Your task to perform on an android device: Open battery settings Image 0: 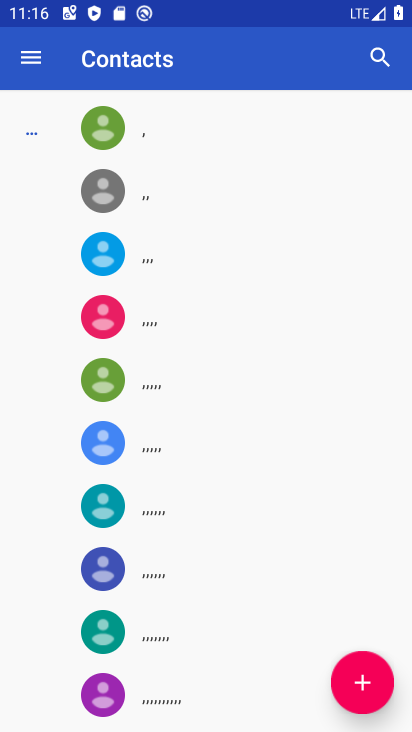
Step 0: press home button
Your task to perform on an android device: Open battery settings Image 1: 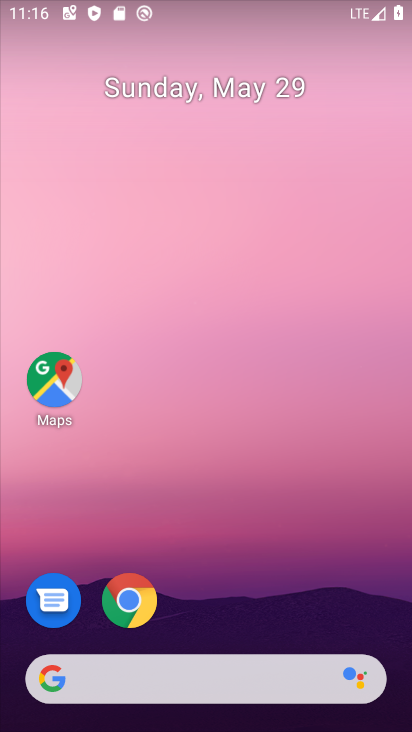
Step 1: drag from (295, 644) to (306, 40)
Your task to perform on an android device: Open battery settings Image 2: 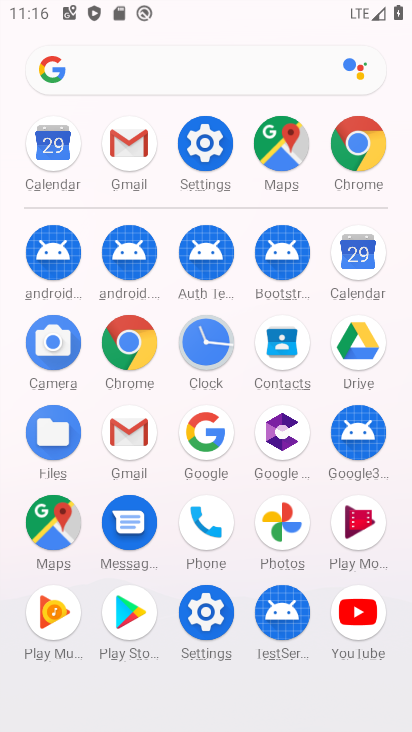
Step 2: click (208, 142)
Your task to perform on an android device: Open battery settings Image 3: 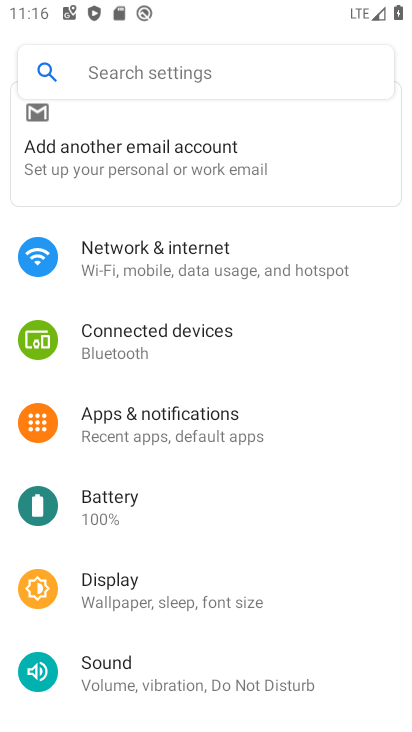
Step 3: click (116, 508)
Your task to perform on an android device: Open battery settings Image 4: 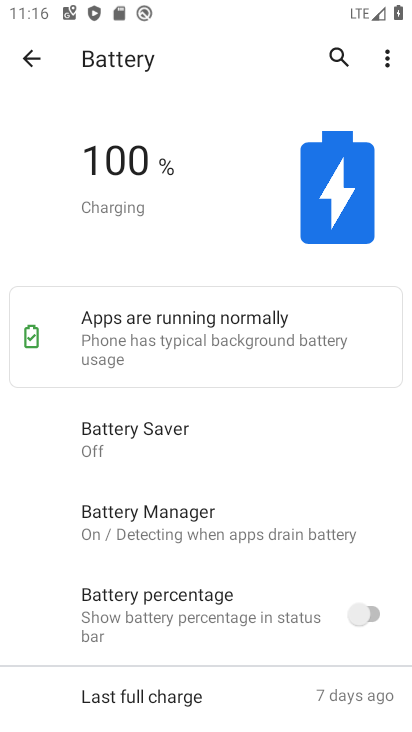
Step 4: task complete